Your task to perform on an android device: turn on improve location accuracy Image 0: 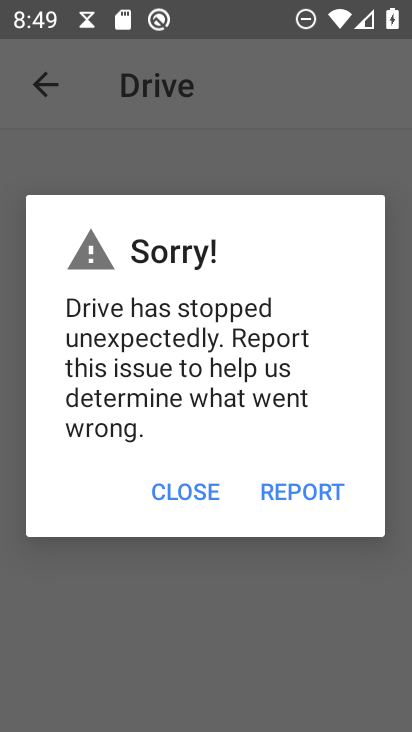
Step 0: press home button
Your task to perform on an android device: turn on improve location accuracy Image 1: 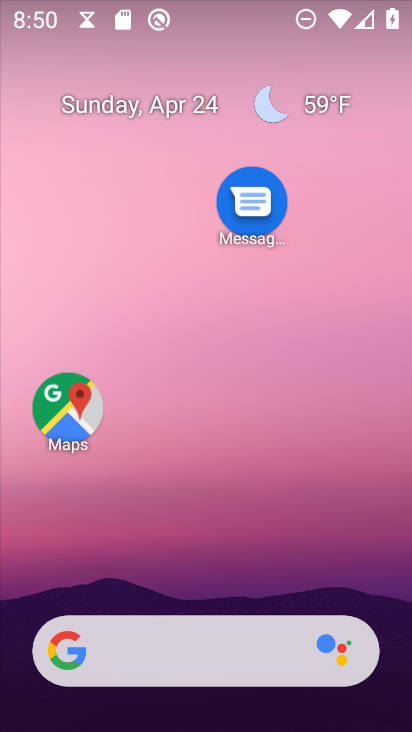
Step 1: drag from (124, 652) to (262, 179)
Your task to perform on an android device: turn on improve location accuracy Image 2: 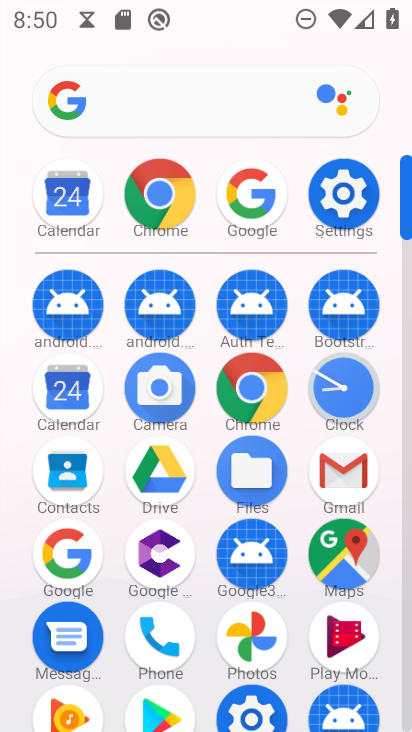
Step 2: click (349, 204)
Your task to perform on an android device: turn on improve location accuracy Image 3: 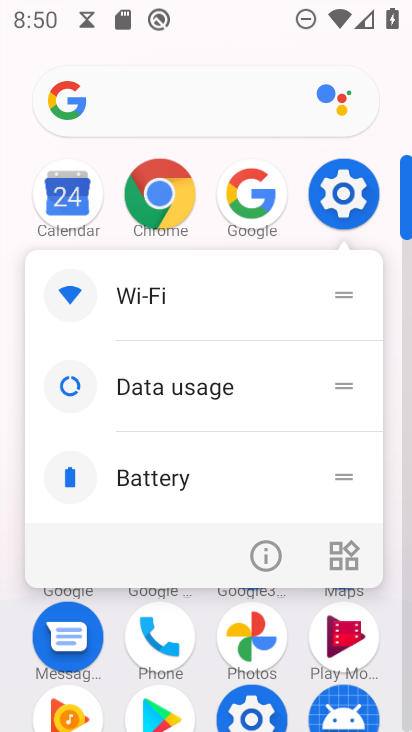
Step 3: click (335, 211)
Your task to perform on an android device: turn on improve location accuracy Image 4: 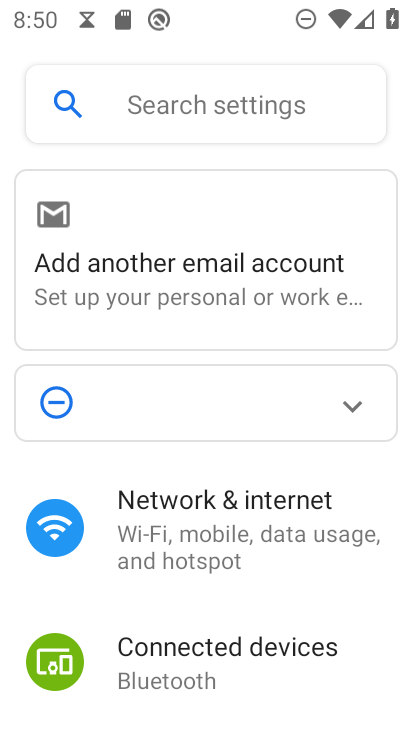
Step 4: drag from (227, 631) to (326, 191)
Your task to perform on an android device: turn on improve location accuracy Image 5: 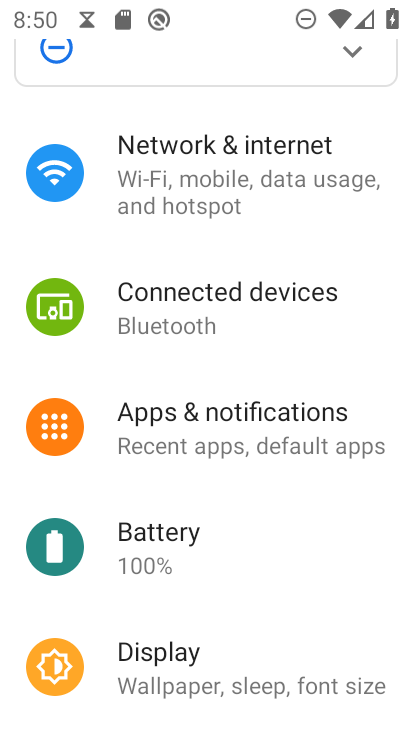
Step 5: drag from (237, 604) to (293, 124)
Your task to perform on an android device: turn on improve location accuracy Image 6: 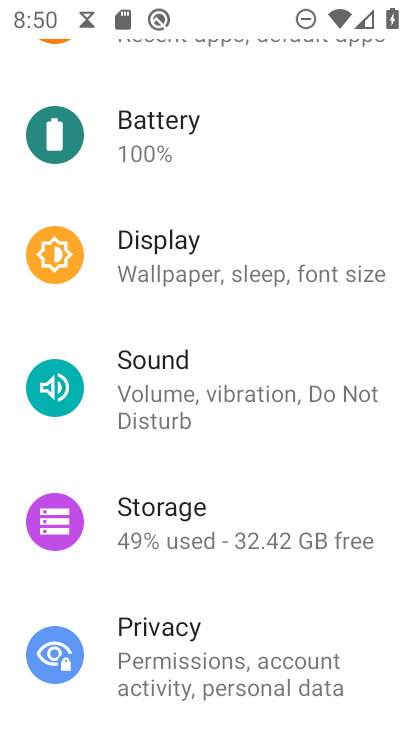
Step 6: drag from (245, 619) to (278, 176)
Your task to perform on an android device: turn on improve location accuracy Image 7: 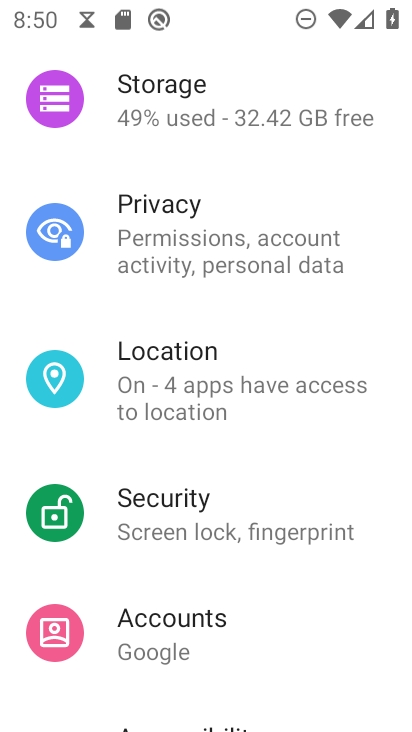
Step 7: drag from (248, 589) to (236, 188)
Your task to perform on an android device: turn on improve location accuracy Image 8: 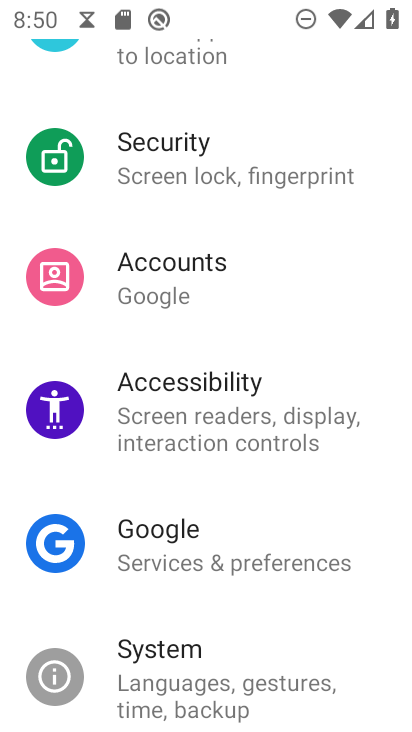
Step 8: drag from (281, 240) to (252, 534)
Your task to perform on an android device: turn on improve location accuracy Image 9: 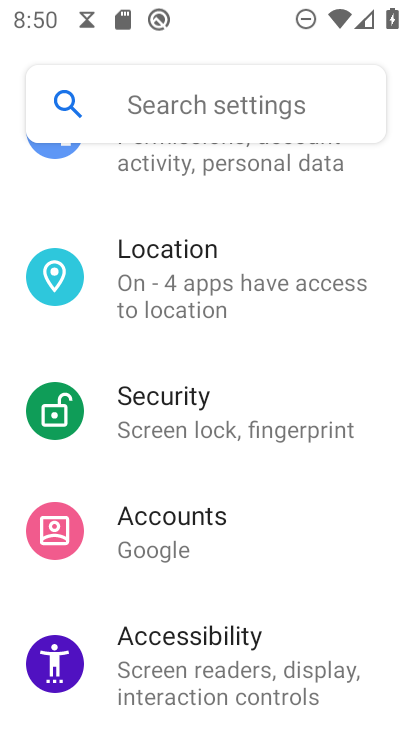
Step 9: click (193, 254)
Your task to perform on an android device: turn on improve location accuracy Image 10: 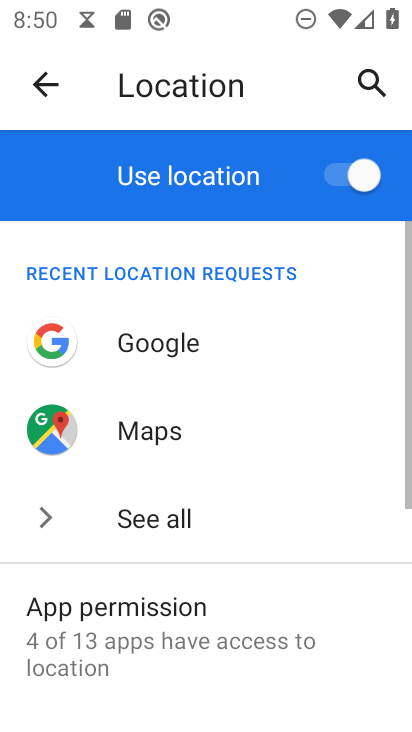
Step 10: drag from (252, 669) to (304, 355)
Your task to perform on an android device: turn on improve location accuracy Image 11: 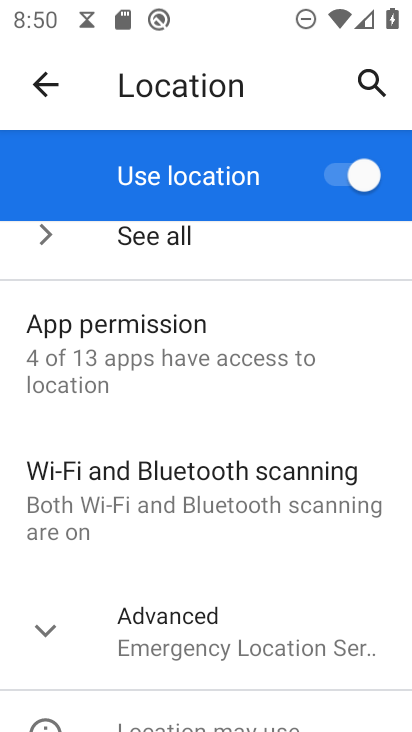
Step 11: click (128, 622)
Your task to perform on an android device: turn on improve location accuracy Image 12: 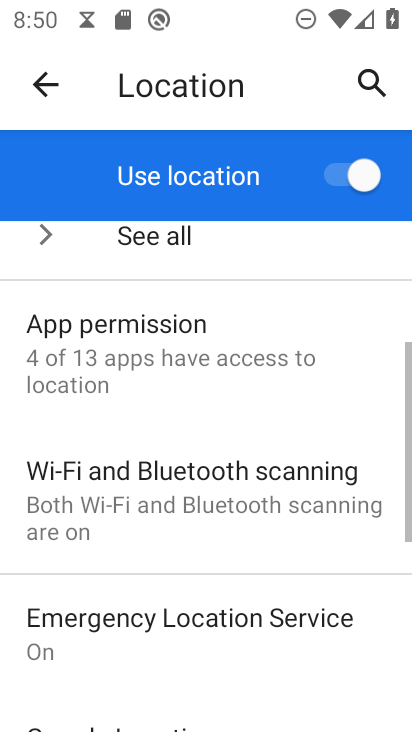
Step 12: drag from (169, 672) to (250, 292)
Your task to perform on an android device: turn on improve location accuracy Image 13: 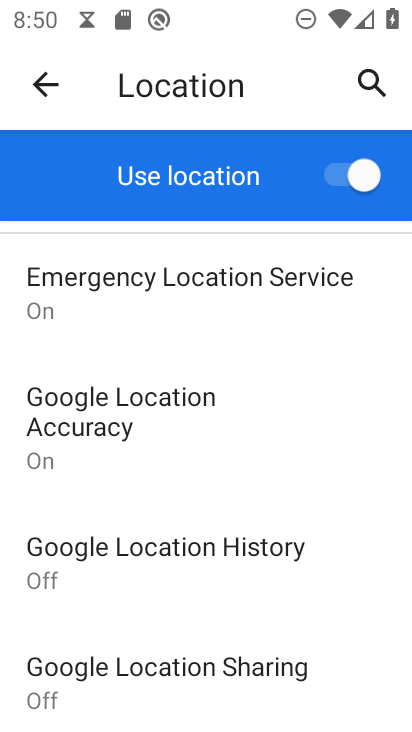
Step 13: click (112, 404)
Your task to perform on an android device: turn on improve location accuracy Image 14: 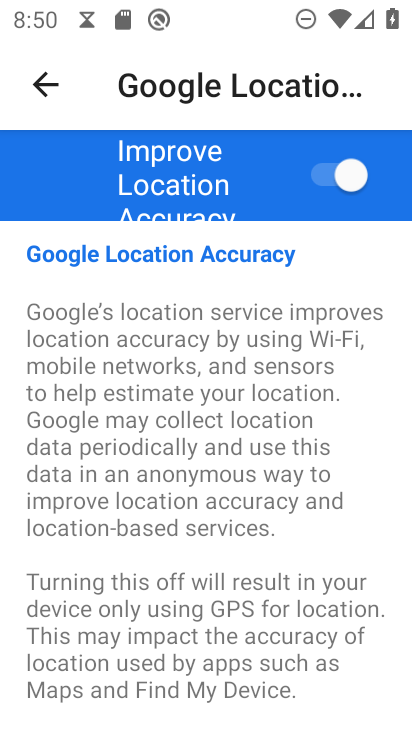
Step 14: task complete